Your task to perform on an android device: set an alarm Image 0: 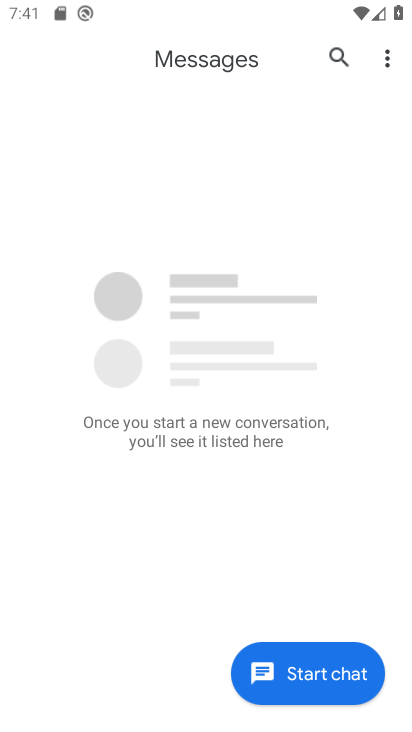
Step 0: press home button
Your task to perform on an android device: set an alarm Image 1: 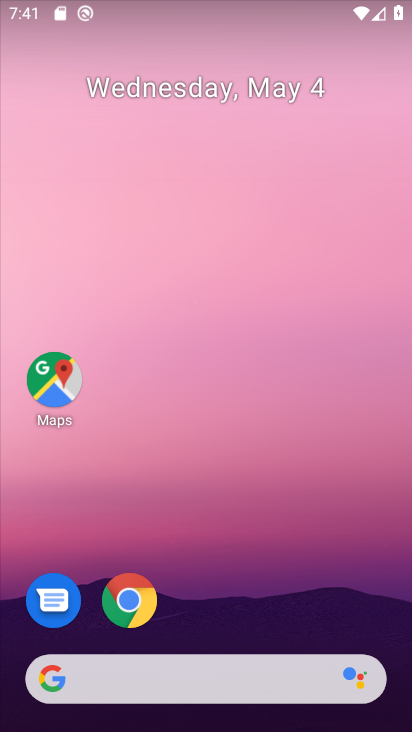
Step 1: drag from (159, 648) to (294, 0)
Your task to perform on an android device: set an alarm Image 2: 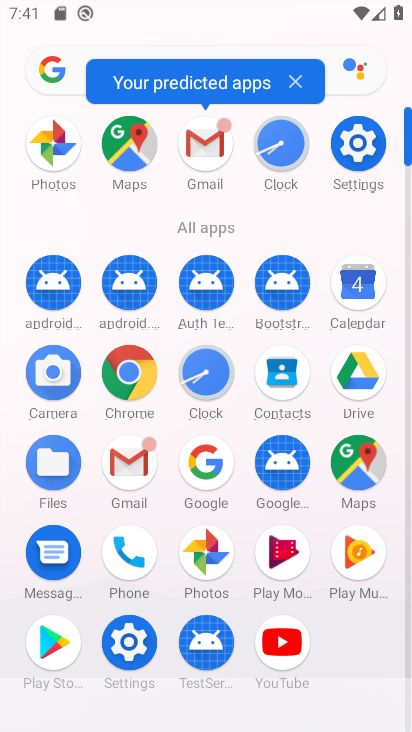
Step 2: click (211, 366)
Your task to perform on an android device: set an alarm Image 3: 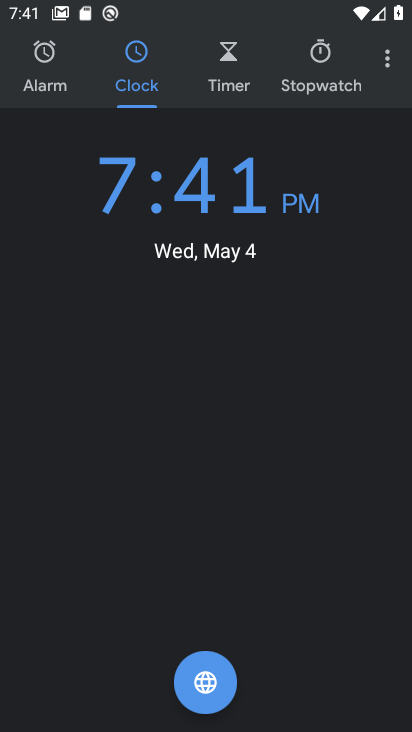
Step 3: click (37, 71)
Your task to perform on an android device: set an alarm Image 4: 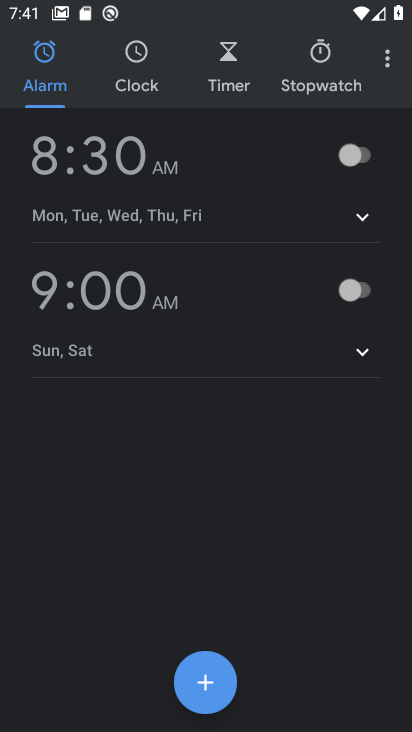
Step 4: click (367, 153)
Your task to perform on an android device: set an alarm Image 5: 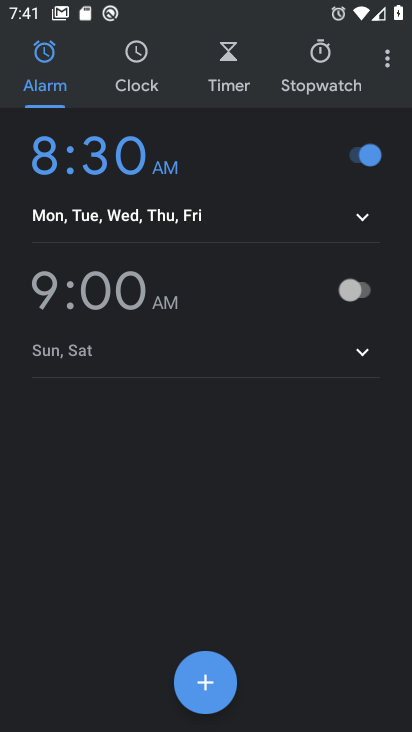
Step 5: task complete